Your task to perform on an android device: Go to settings Image 0: 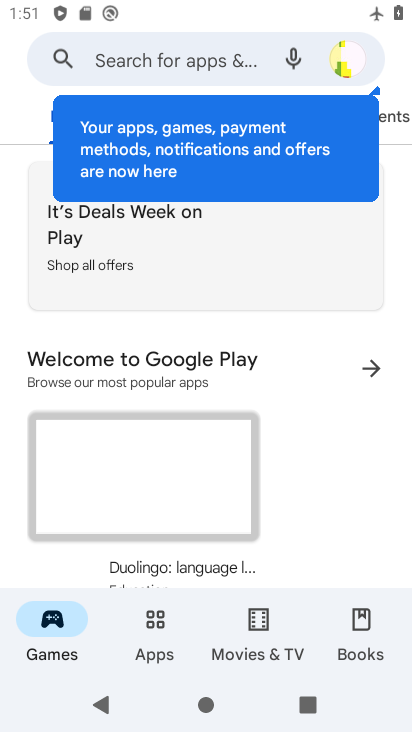
Step 0: drag from (193, 577) to (243, 98)
Your task to perform on an android device: Go to settings Image 1: 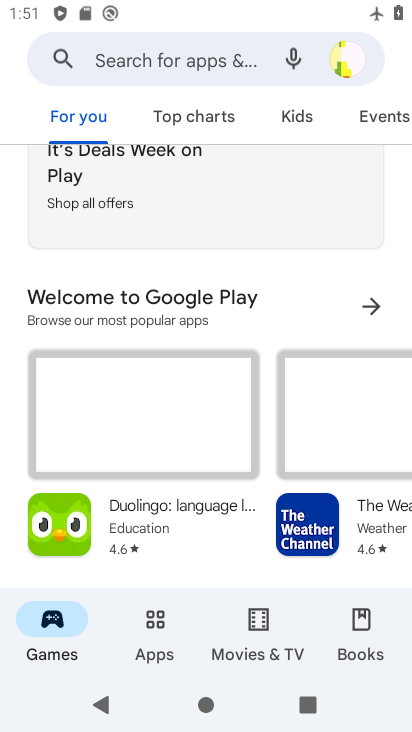
Step 1: press home button
Your task to perform on an android device: Go to settings Image 2: 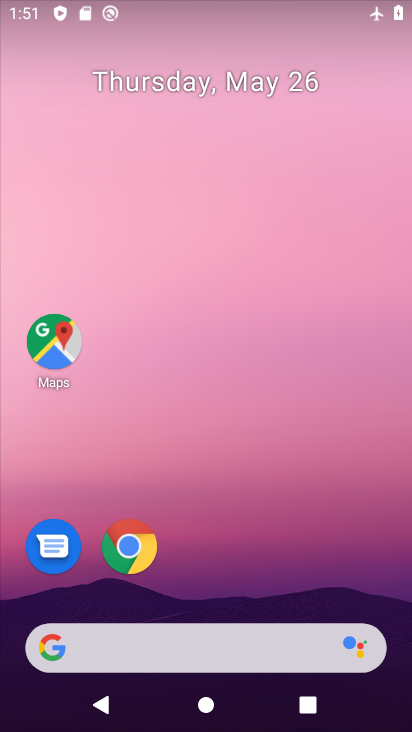
Step 2: drag from (169, 567) to (235, 94)
Your task to perform on an android device: Go to settings Image 3: 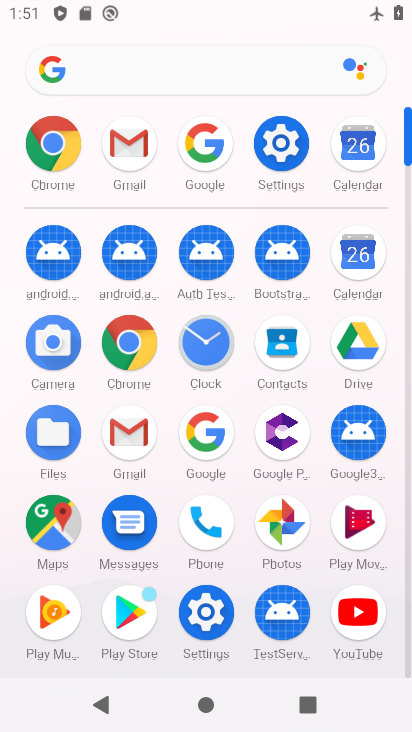
Step 3: click (285, 140)
Your task to perform on an android device: Go to settings Image 4: 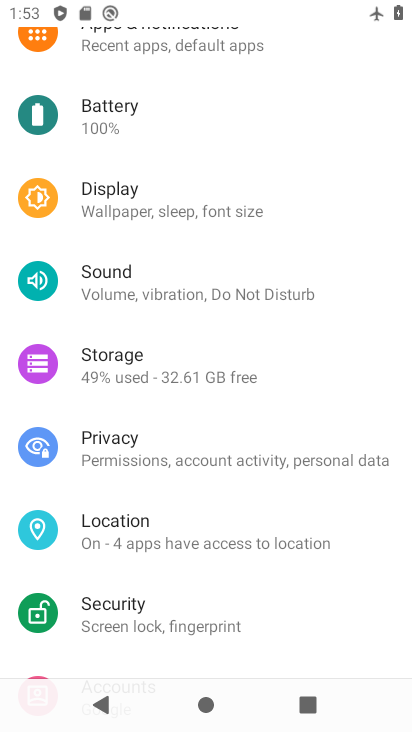
Step 4: task complete